Your task to perform on an android device: Go to Maps Image 0: 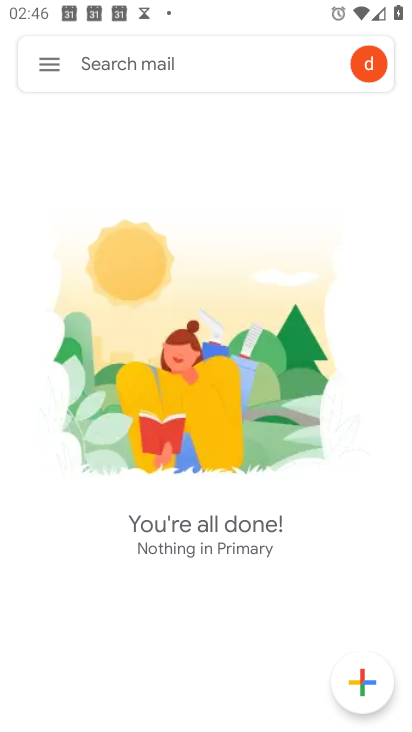
Step 0: press home button
Your task to perform on an android device: Go to Maps Image 1: 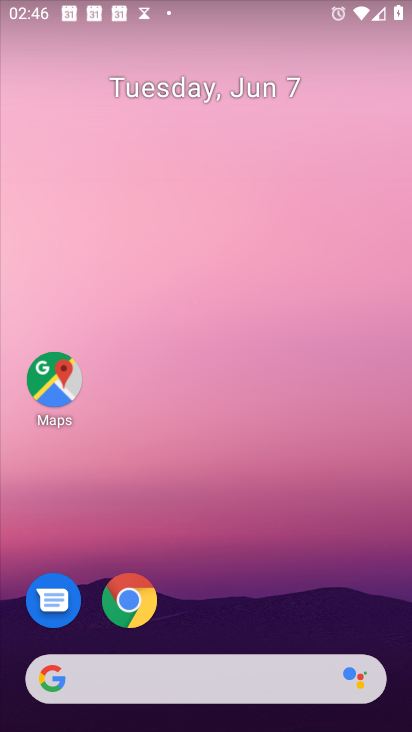
Step 1: drag from (194, 729) to (212, 197)
Your task to perform on an android device: Go to Maps Image 2: 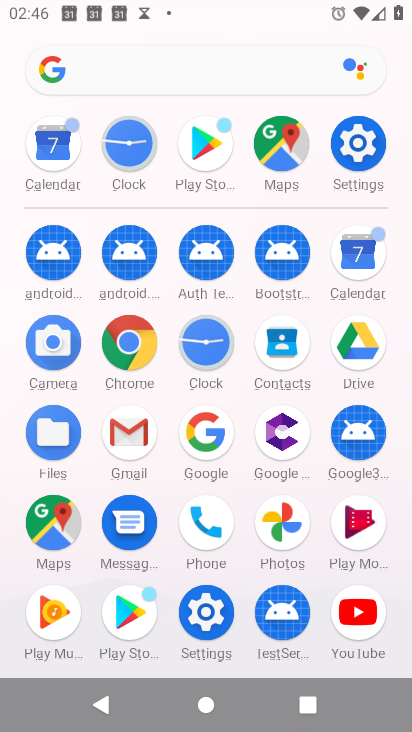
Step 2: click (60, 521)
Your task to perform on an android device: Go to Maps Image 3: 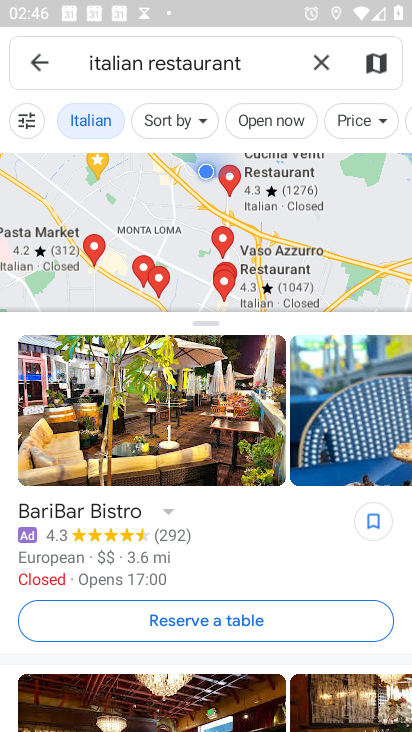
Step 3: task complete